Your task to perform on an android device: turn off location Image 0: 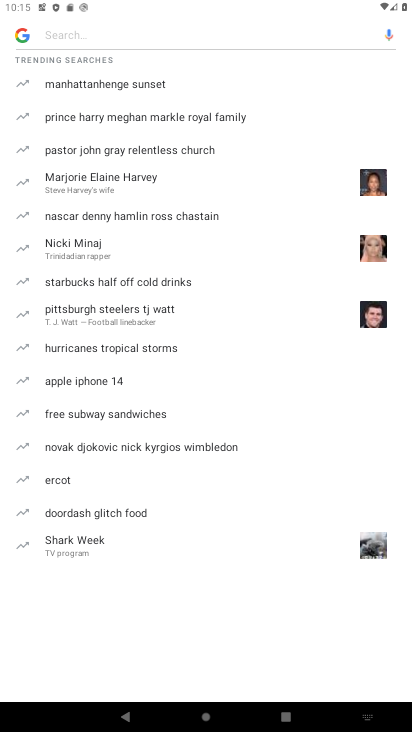
Step 0: press home button
Your task to perform on an android device: turn off location Image 1: 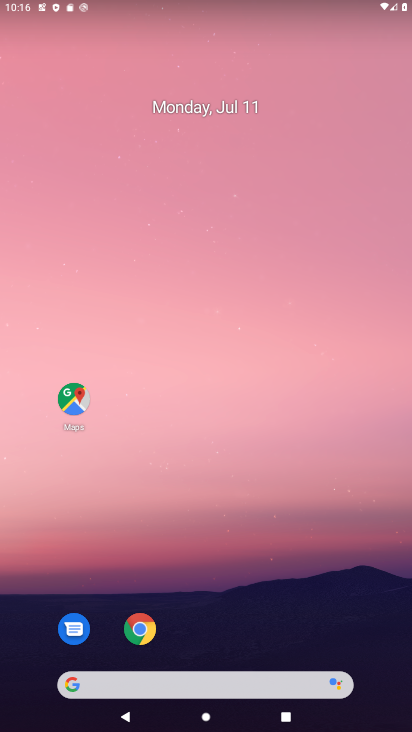
Step 1: drag from (230, 638) to (230, 213)
Your task to perform on an android device: turn off location Image 2: 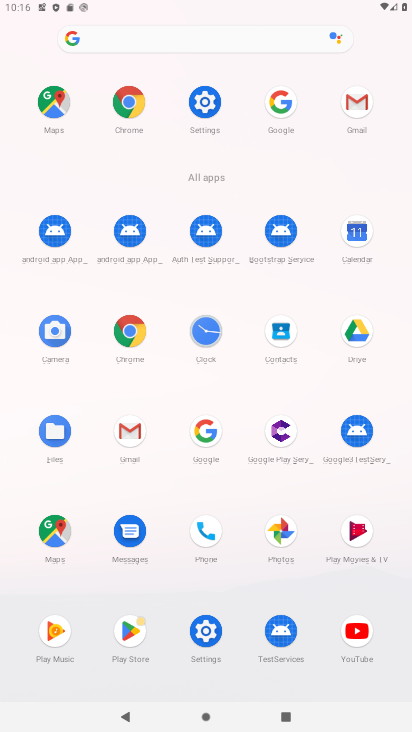
Step 2: click (215, 100)
Your task to perform on an android device: turn off location Image 3: 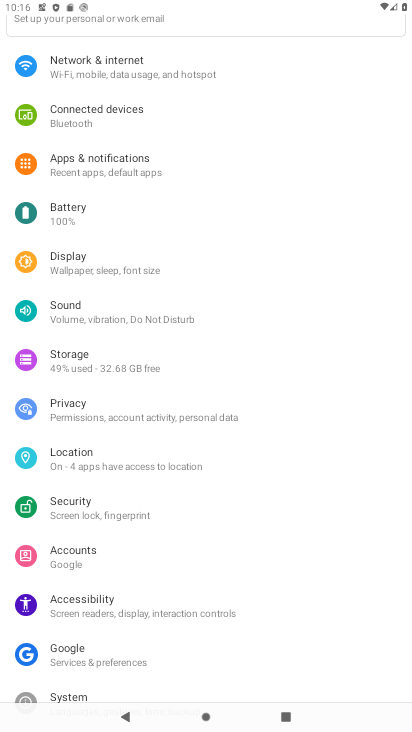
Step 3: click (111, 465)
Your task to perform on an android device: turn off location Image 4: 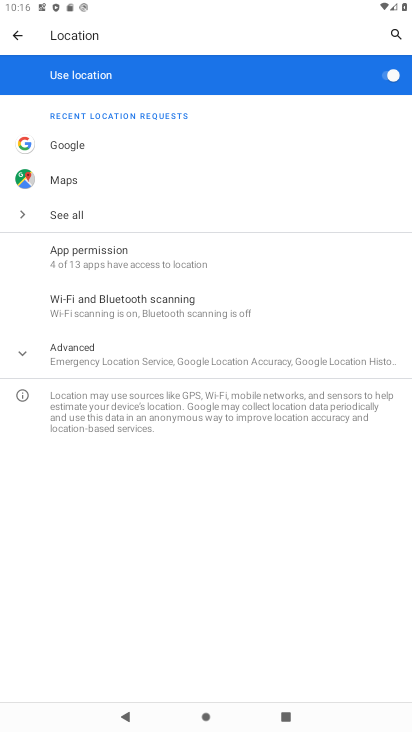
Step 4: click (385, 73)
Your task to perform on an android device: turn off location Image 5: 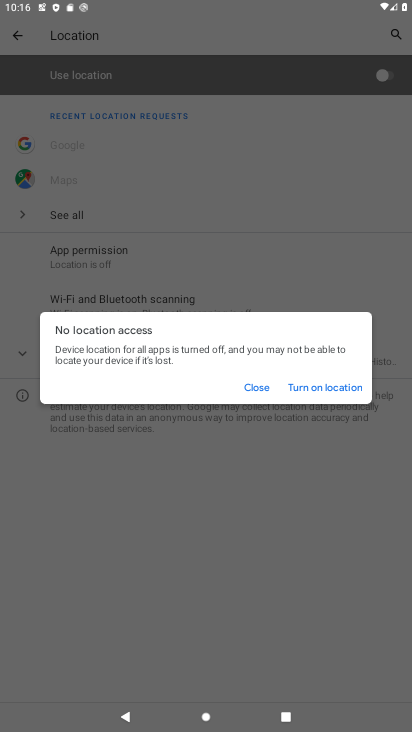
Step 5: task complete